Your task to perform on an android device: change notification settings in the gmail app Image 0: 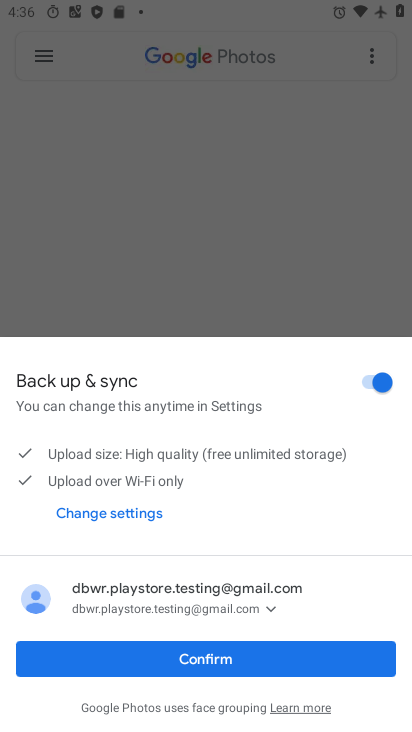
Step 0: press back button
Your task to perform on an android device: change notification settings in the gmail app Image 1: 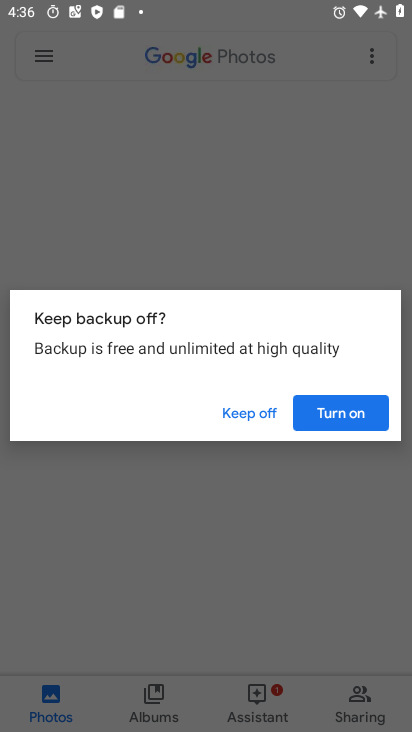
Step 1: press back button
Your task to perform on an android device: change notification settings in the gmail app Image 2: 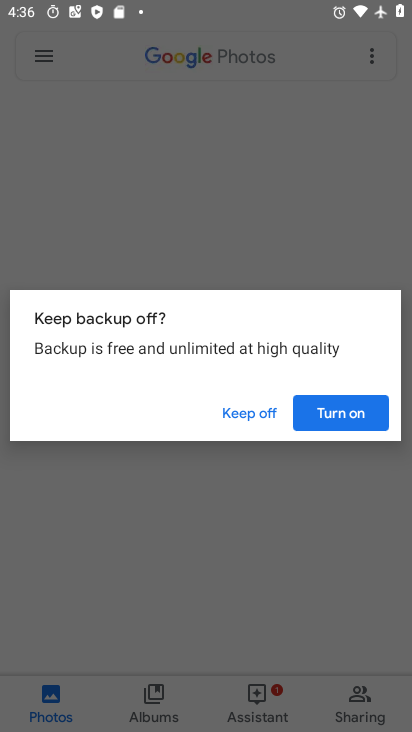
Step 2: press home button
Your task to perform on an android device: change notification settings in the gmail app Image 3: 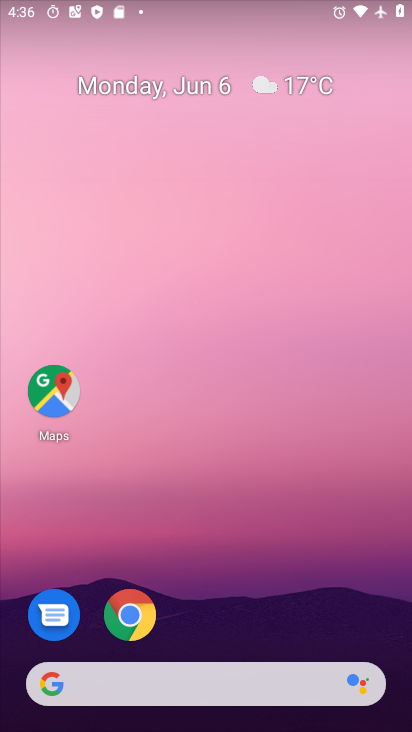
Step 3: drag from (268, 574) to (242, 34)
Your task to perform on an android device: change notification settings in the gmail app Image 4: 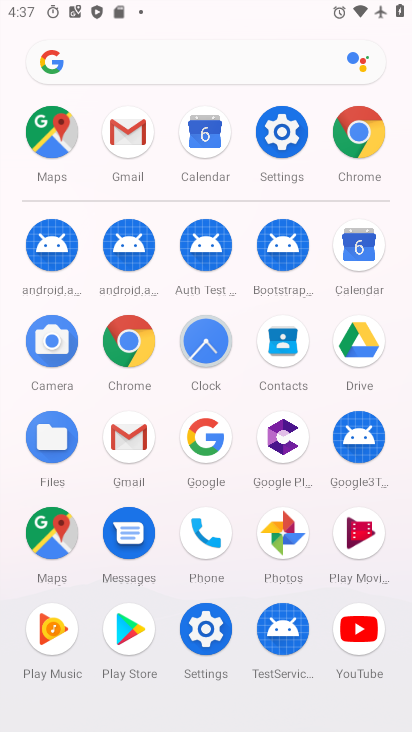
Step 4: click (132, 430)
Your task to perform on an android device: change notification settings in the gmail app Image 5: 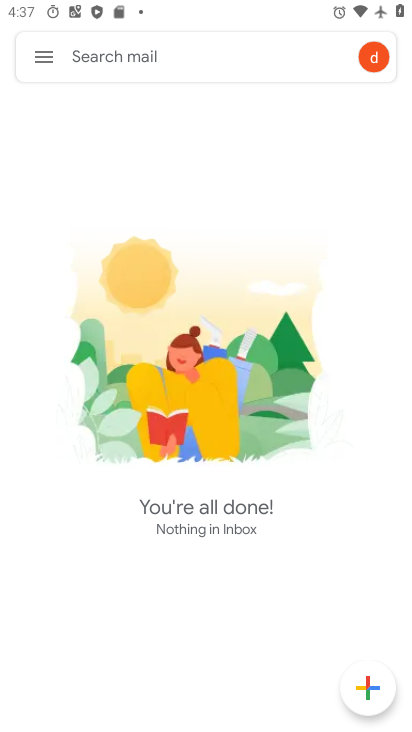
Step 5: click (55, 39)
Your task to perform on an android device: change notification settings in the gmail app Image 6: 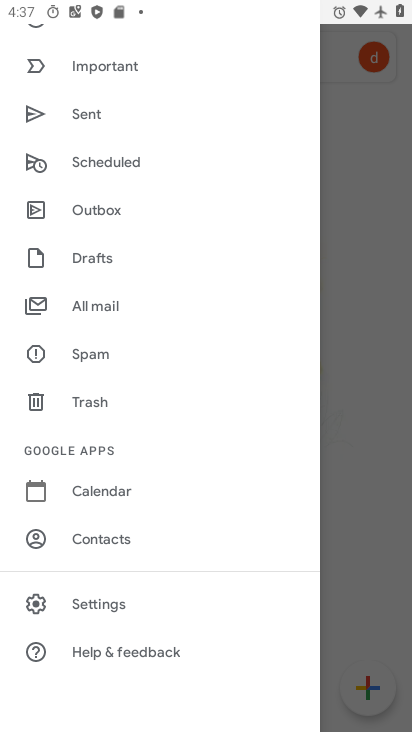
Step 6: click (120, 599)
Your task to perform on an android device: change notification settings in the gmail app Image 7: 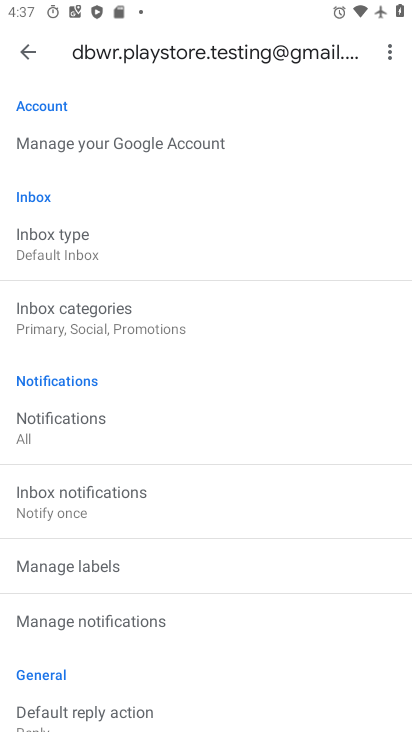
Step 7: click (142, 609)
Your task to perform on an android device: change notification settings in the gmail app Image 8: 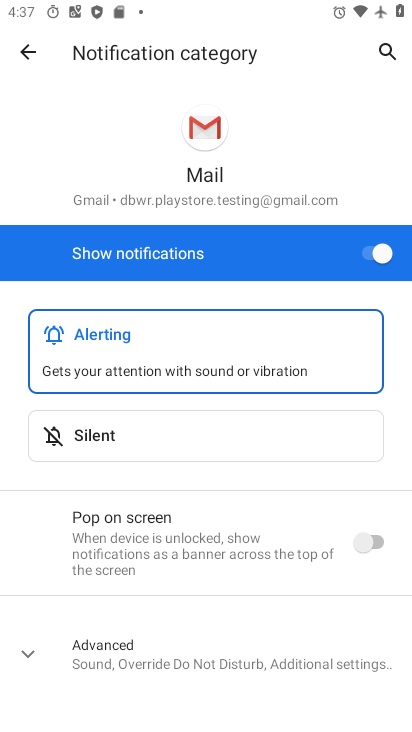
Step 8: click (41, 648)
Your task to perform on an android device: change notification settings in the gmail app Image 9: 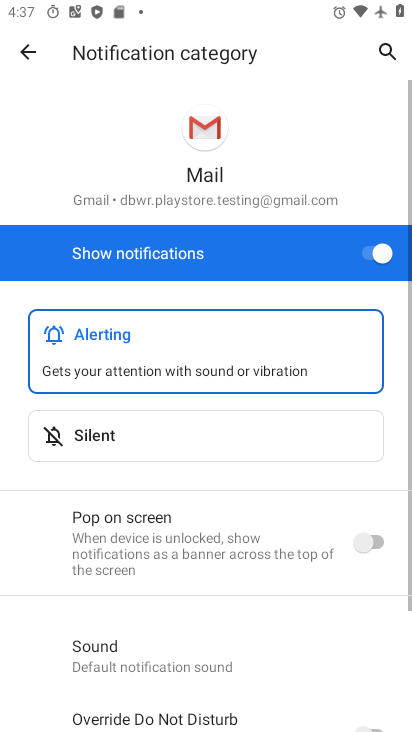
Step 9: drag from (247, 599) to (262, 167)
Your task to perform on an android device: change notification settings in the gmail app Image 10: 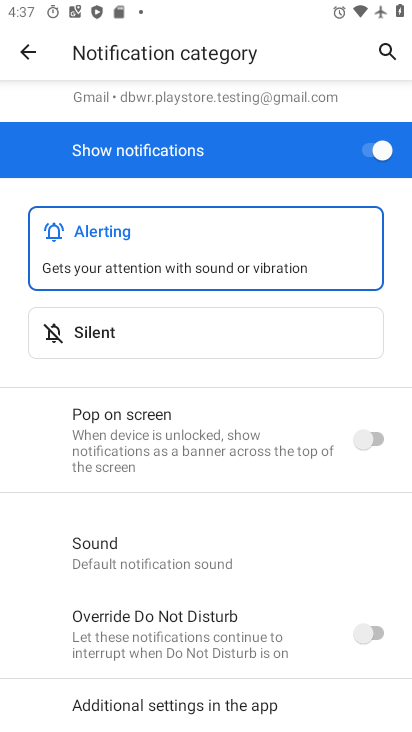
Step 10: drag from (196, 657) to (224, 270)
Your task to perform on an android device: change notification settings in the gmail app Image 11: 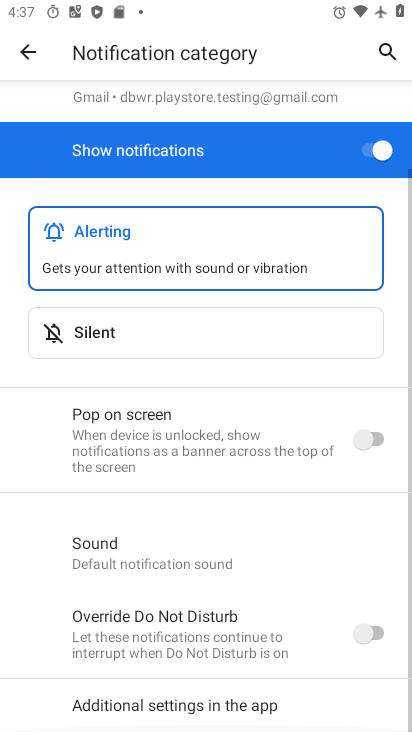
Step 11: drag from (233, 161) to (233, 667)
Your task to perform on an android device: change notification settings in the gmail app Image 12: 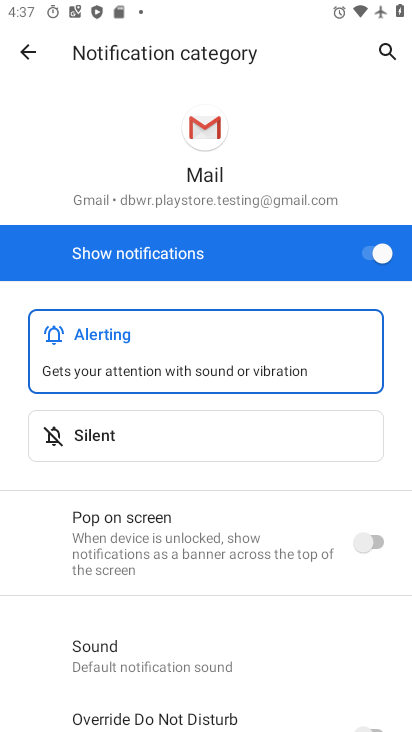
Step 12: drag from (228, 556) to (277, 211)
Your task to perform on an android device: change notification settings in the gmail app Image 13: 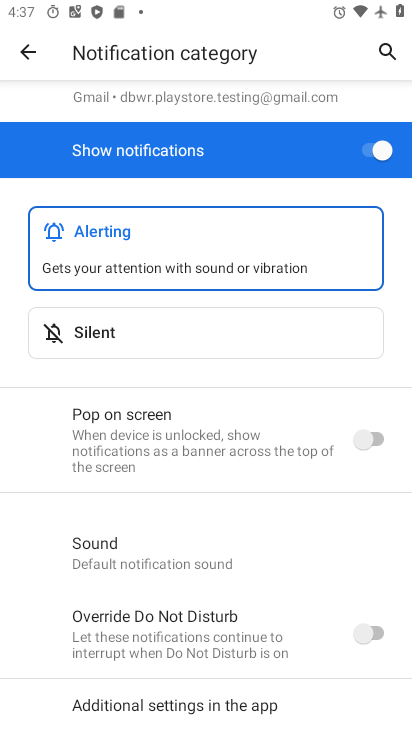
Step 13: click (387, 156)
Your task to perform on an android device: change notification settings in the gmail app Image 14: 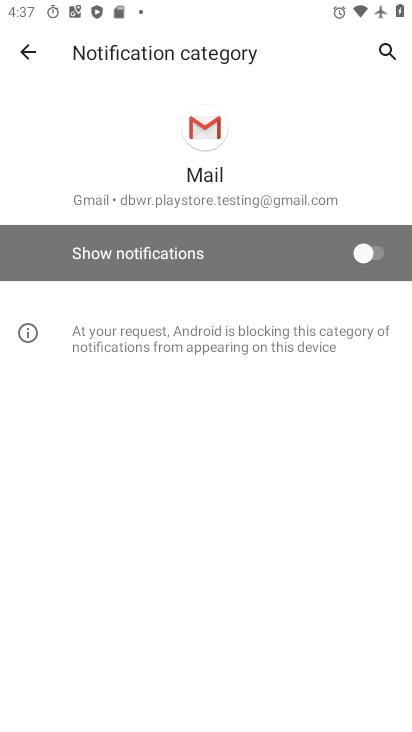
Step 14: task complete